Your task to perform on an android device: change alarm snooze length Image 0: 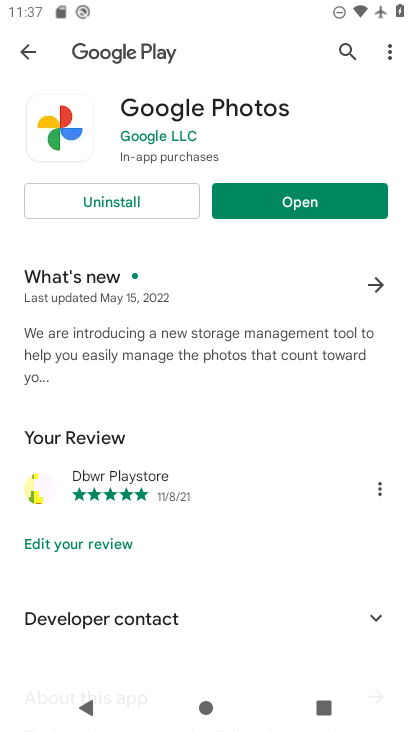
Step 0: press home button
Your task to perform on an android device: change alarm snooze length Image 1: 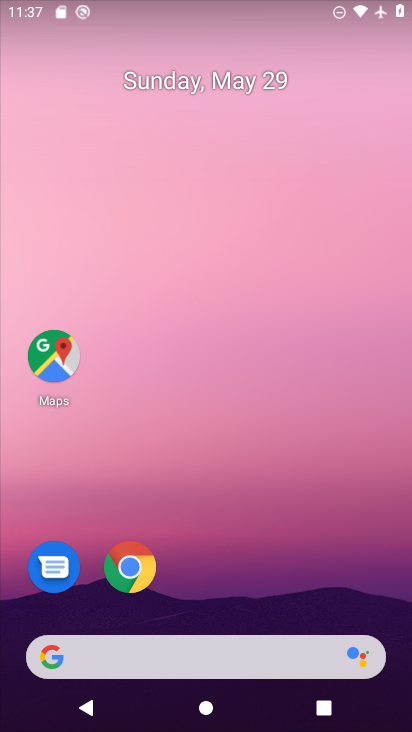
Step 1: drag from (366, 617) to (280, 71)
Your task to perform on an android device: change alarm snooze length Image 2: 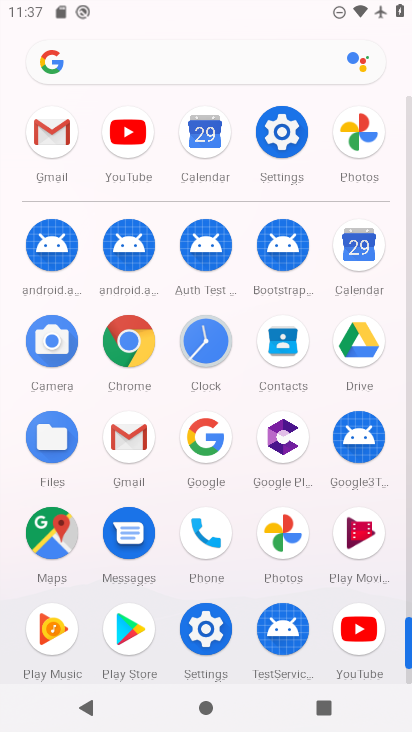
Step 2: click (409, 609)
Your task to perform on an android device: change alarm snooze length Image 3: 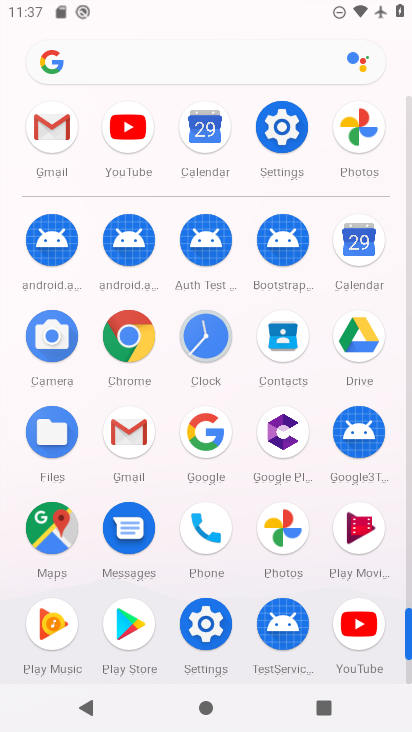
Step 3: click (206, 336)
Your task to perform on an android device: change alarm snooze length Image 4: 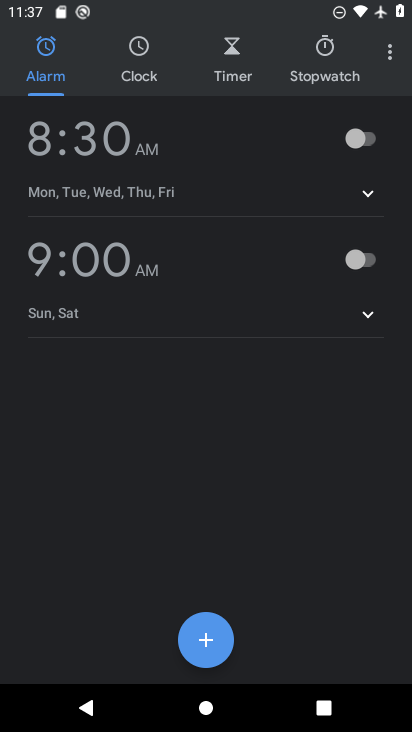
Step 4: click (390, 59)
Your task to perform on an android device: change alarm snooze length Image 5: 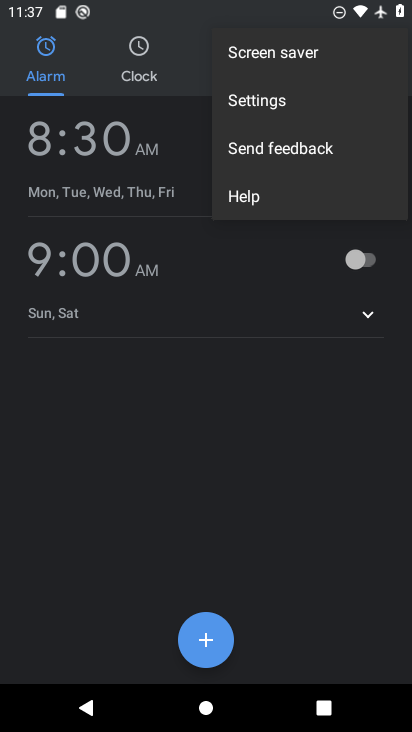
Step 5: click (252, 106)
Your task to perform on an android device: change alarm snooze length Image 6: 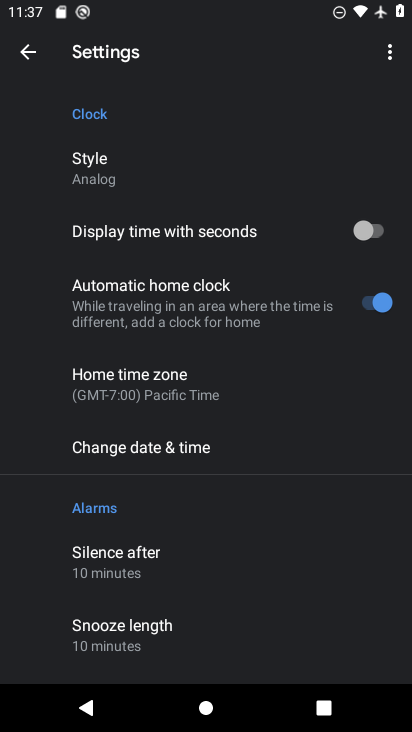
Step 6: drag from (212, 618) to (240, 332)
Your task to perform on an android device: change alarm snooze length Image 7: 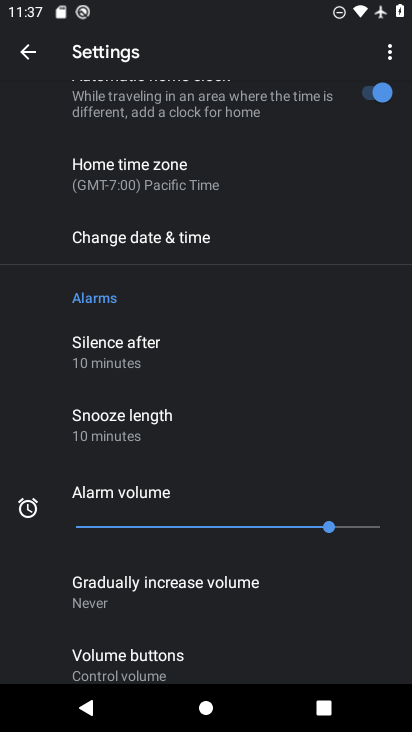
Step 7: click (105, 422)
Your task to perform on an android device: change alarm snooze length Image 8: 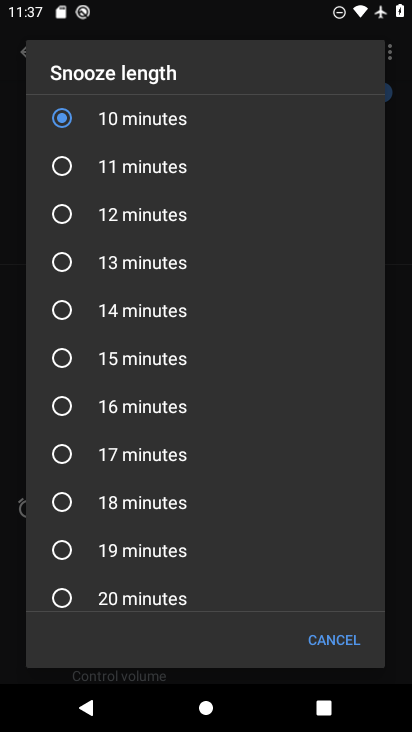
Step 8: click (61, 357)
Your task to perform on an android device: change alarm snooze length Image 9: 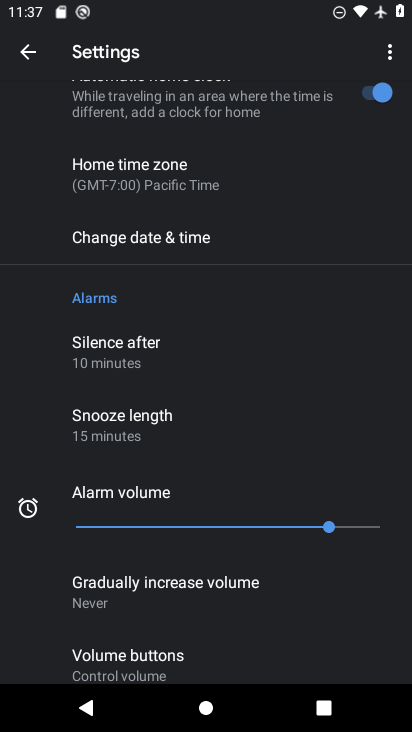
Step 9: task complete